Your task to perform on an android device: Do I have any events tomorrow? Image 0: 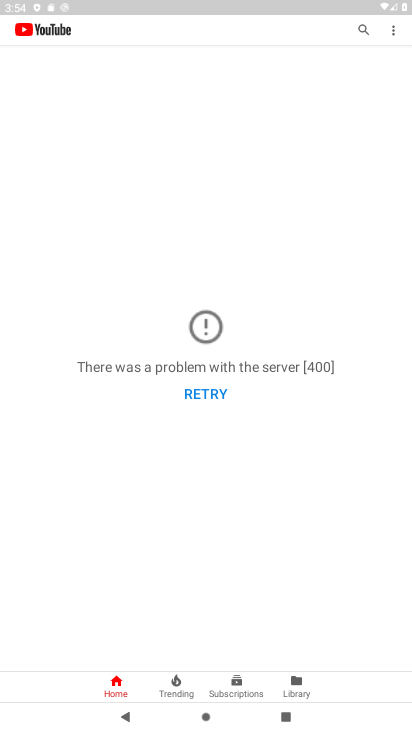
Step 0: press home button
Your task to perform on an android device: Do I have any events tomorrow? Image 1: 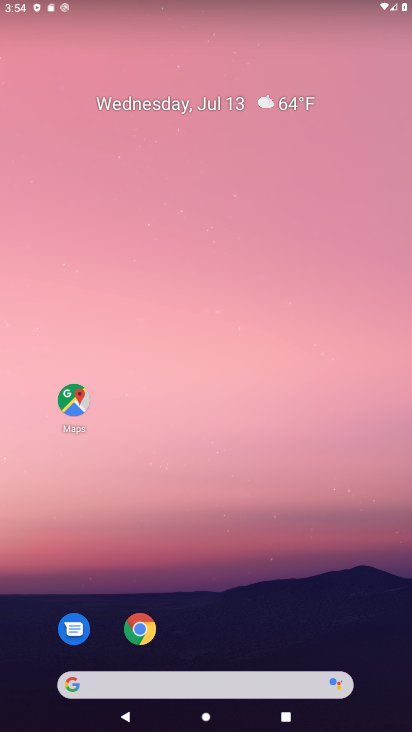
Step 1: drag from (291, 630) to (305, 32)
Your task to perform on an android device: Do I have any events tomorrow? Image 2: 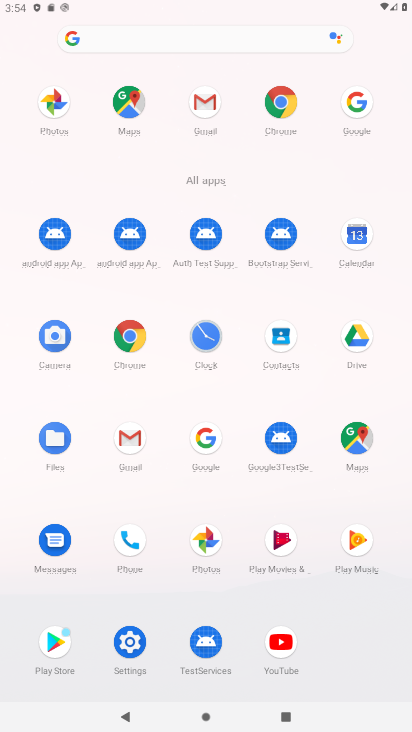
Step 2: click (355, 252)
Your task to perform on an android device: Do I have any events tomorrow? Image 3: 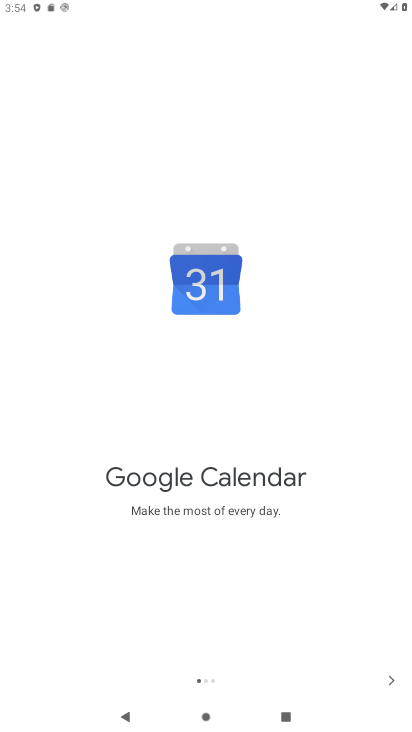
Step 3: click (389, 682)
Your task to perform on an android device: Do I have any events tomorrow? Image 4: 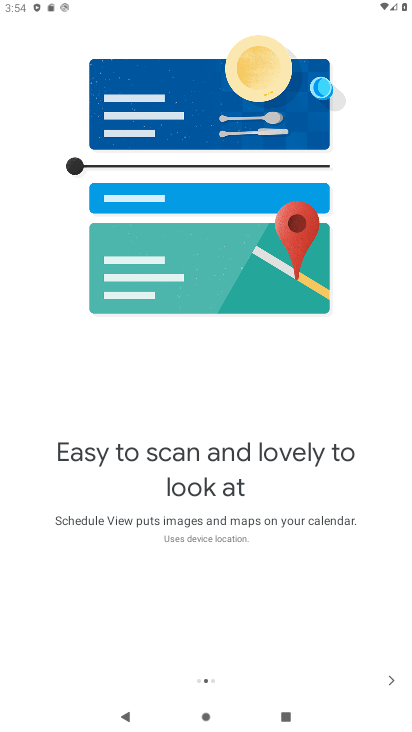
Step 4: click (389, 682)
Your task to perform on an android device: Do I have any events tomorrow? Image 5: 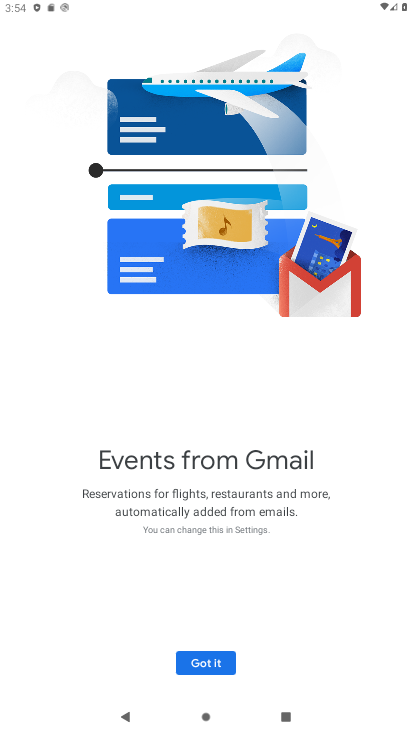
Step 5: click (206, 656)
Your task to perform on an android device: Do I have any events tomorrow? Image 6: 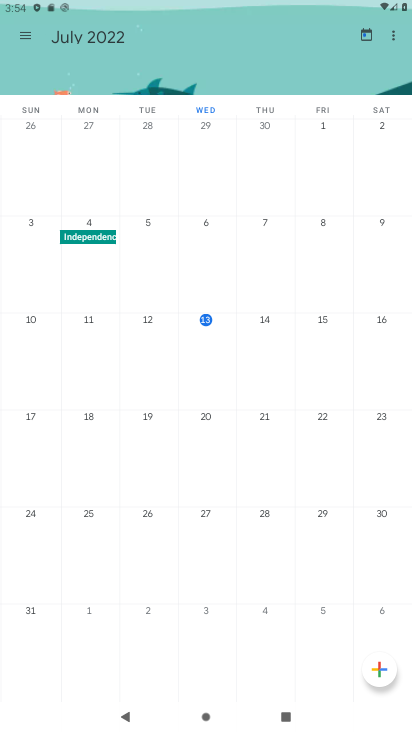
Step 6: click (274, 329)
Your task to perform on an android device: Do I have any events tomorrow? Image 7: 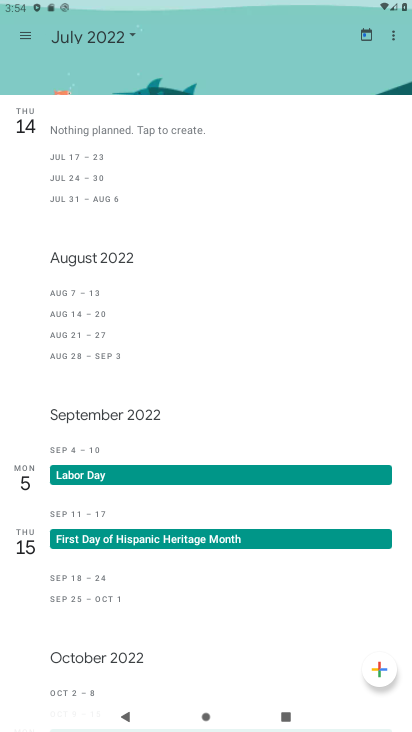
Step 7: task complete